Your task to perform on an android device: turn off javascript in the chrome app Image 0: 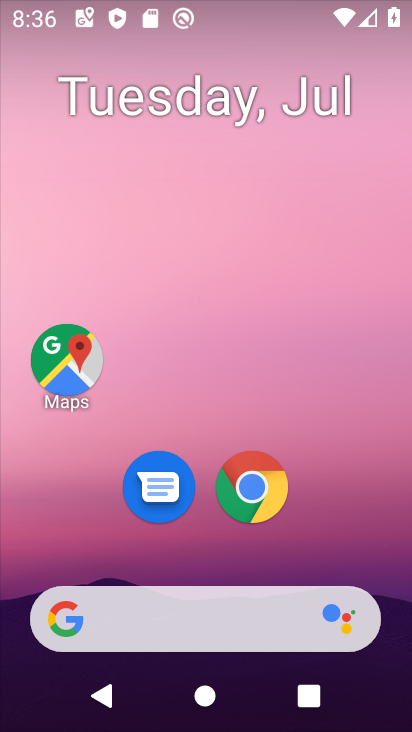
Step 0: click (244, 477)
Your task to perform on an android device: turn off javascript in the chrome app Image 1: 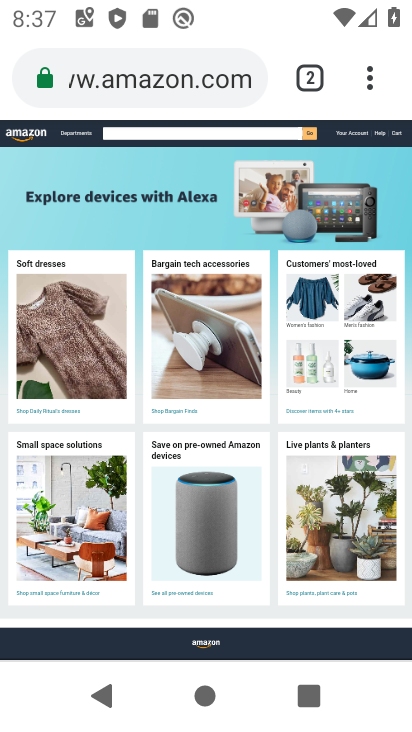
Step 1: drag from (368, 72) to (139, 535)
Your task to perform on an android device: turn off javascript in the chrome app Image 2: 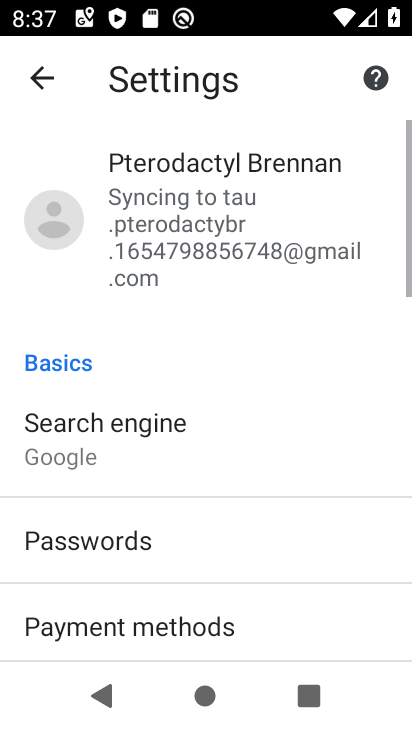
Step 2: drag from (138, 534) to (220, 24)
Your task to perform on an android device: turn off javascript in the chrome app Image 3: 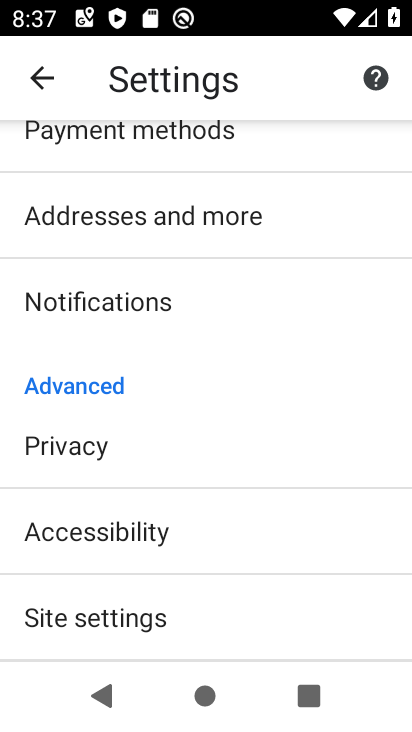
Step 3: click (106, 604)
Your task to perform on an android device: turn off javascript in the chrome app Image 4: 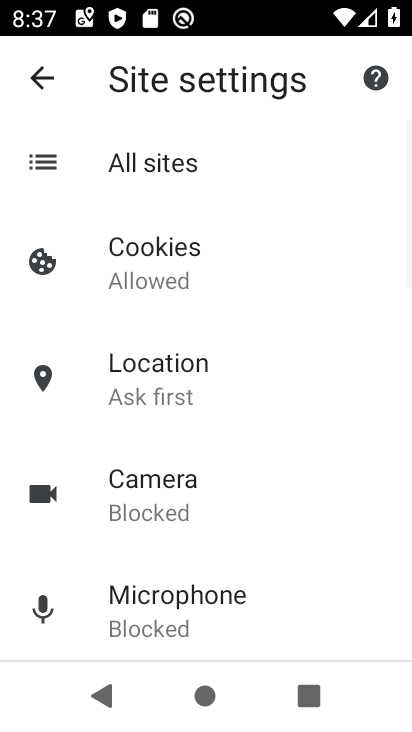
Step 4: drag from (177, 602) to (261, 124)
Your task to perform on an android device: turn off javascript in the chrome app Image 5: 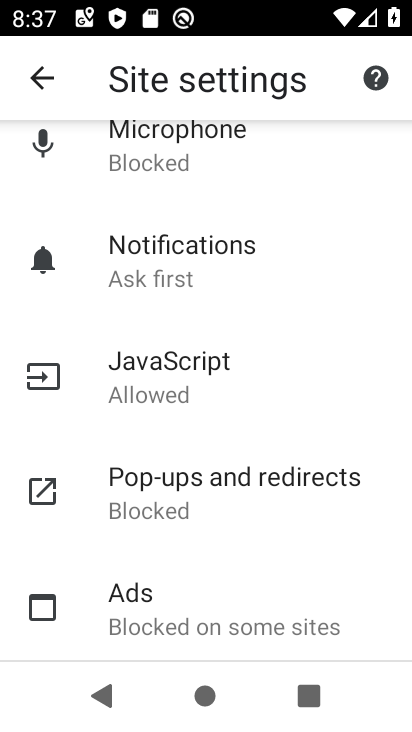
Step 5: click (162, 389)
Your task to perform on an android device: turn off javascript in the chrome app Image 6: 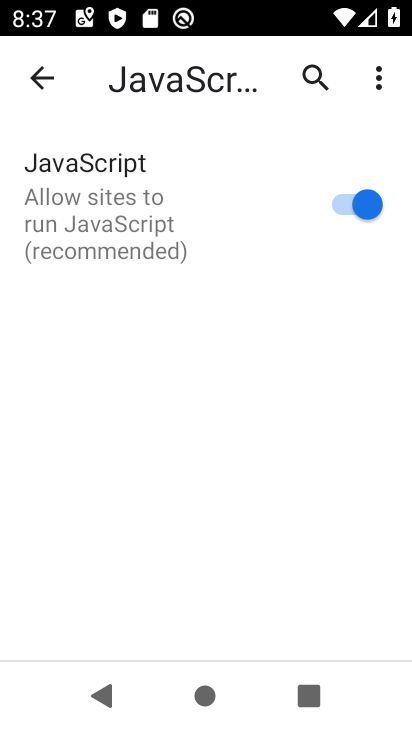
Step 6: click (373, 193)
Your task to perform on an android device: turn off javascript in the chrome app Image 7: 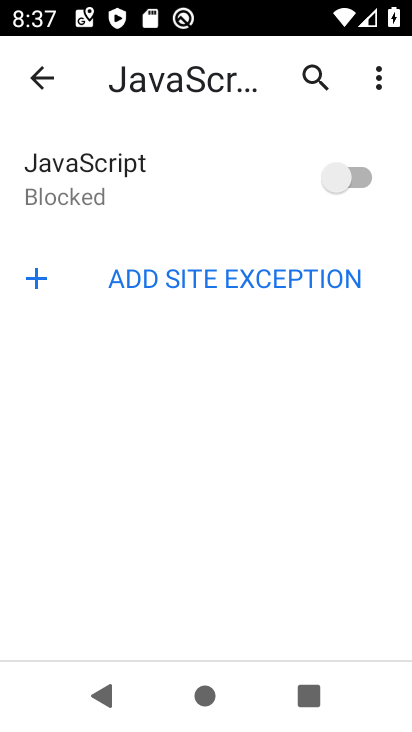
Step 7: task complete